Your task to perform on an android device: open app "Indeed Job Search" (install if not already installed) Image 0: 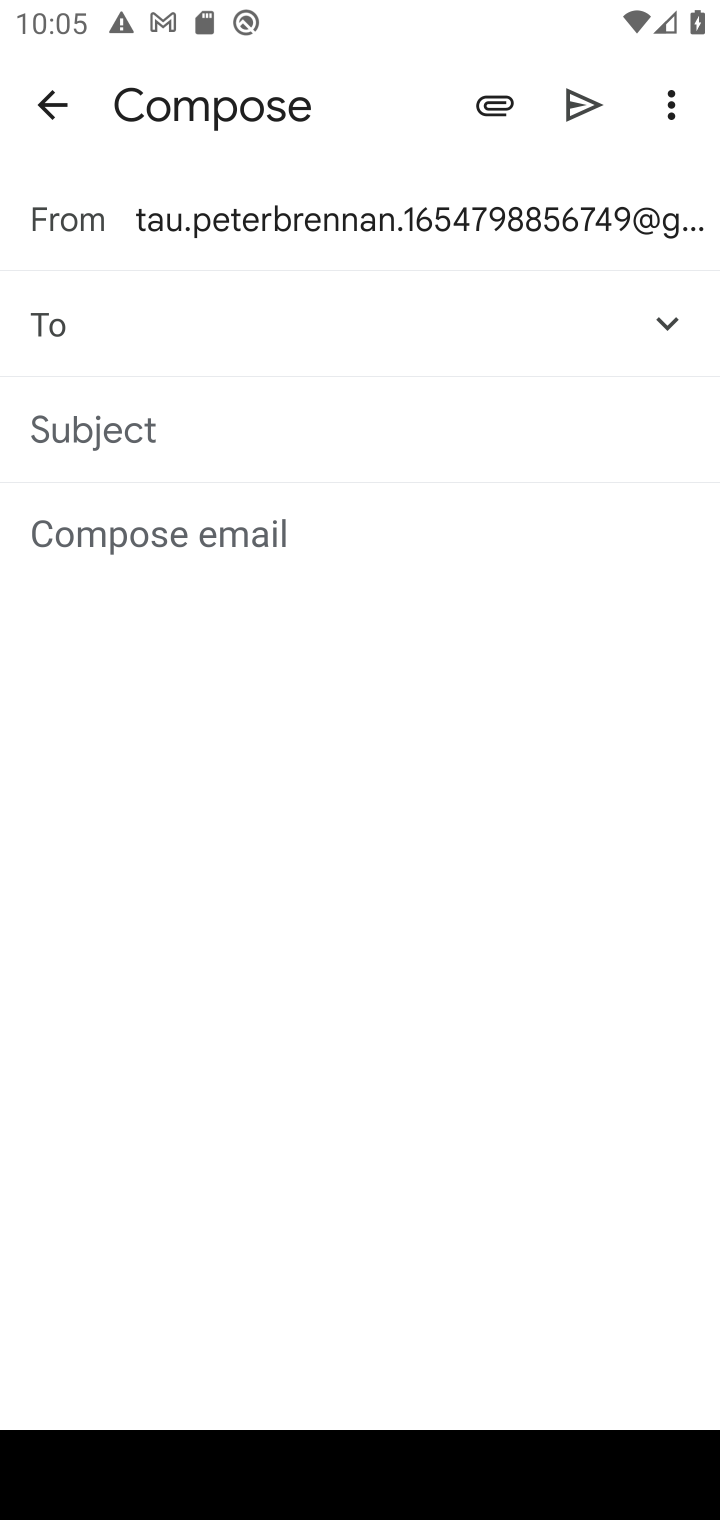
Step 0: press home button
Your task to perform on an android device: open app "Indeed Job Search" (install if not already installed) Image 1: 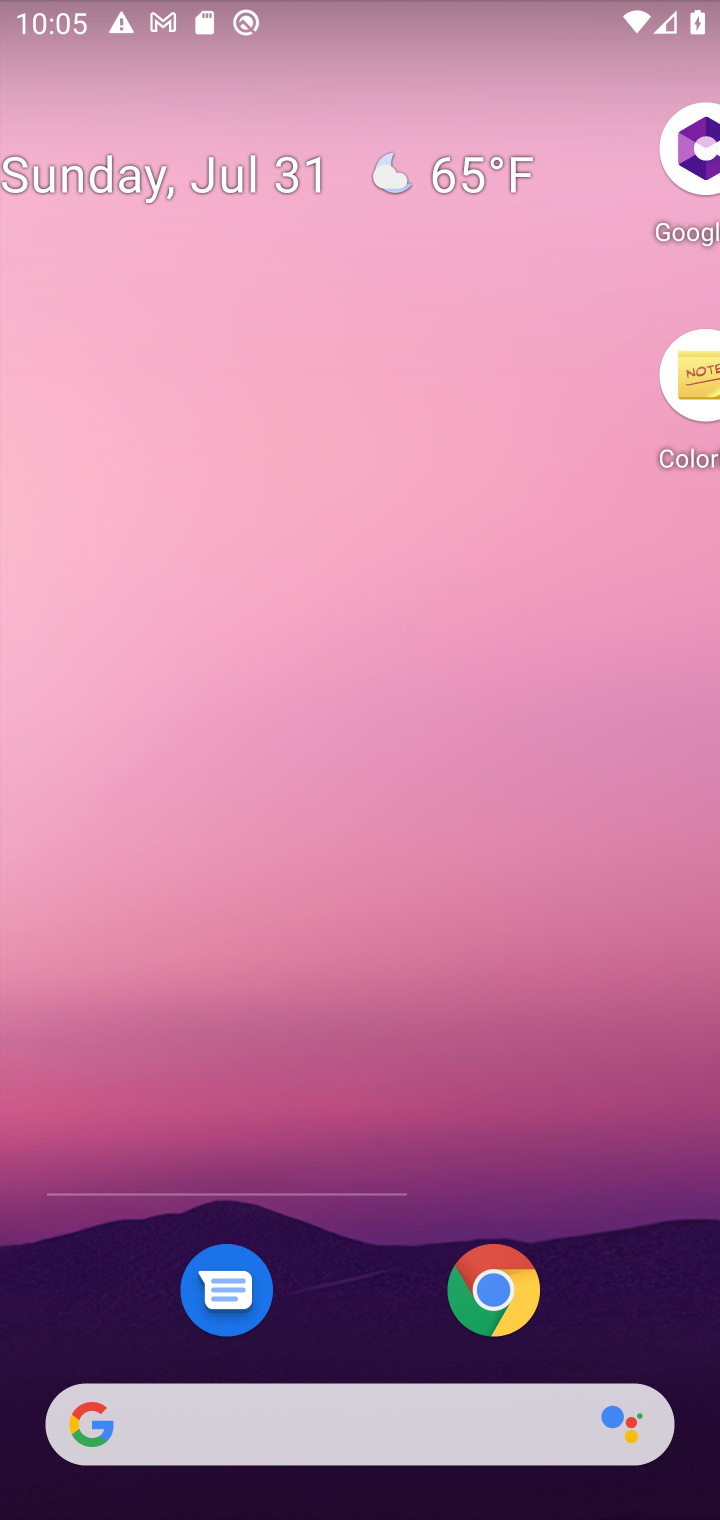
Step 1: press home button
Your task to perform on an android device: open app "Indeed Job Search" (install if not already installed) Image 2: 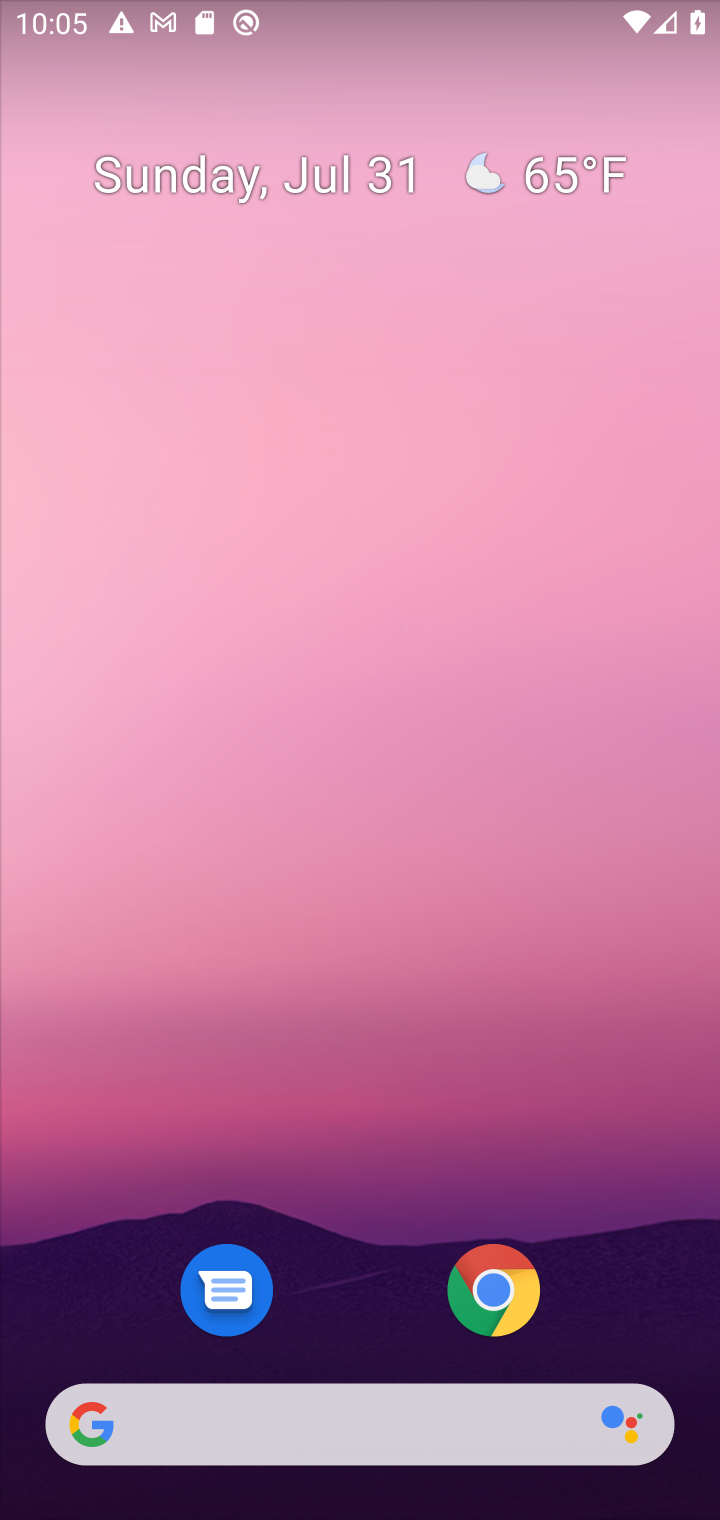
Step 2: drag from (609, 1175) to (607, 116)
Your task to perform on an android device: open app "Indeed Job Search" (install if not already installed) Image 3: 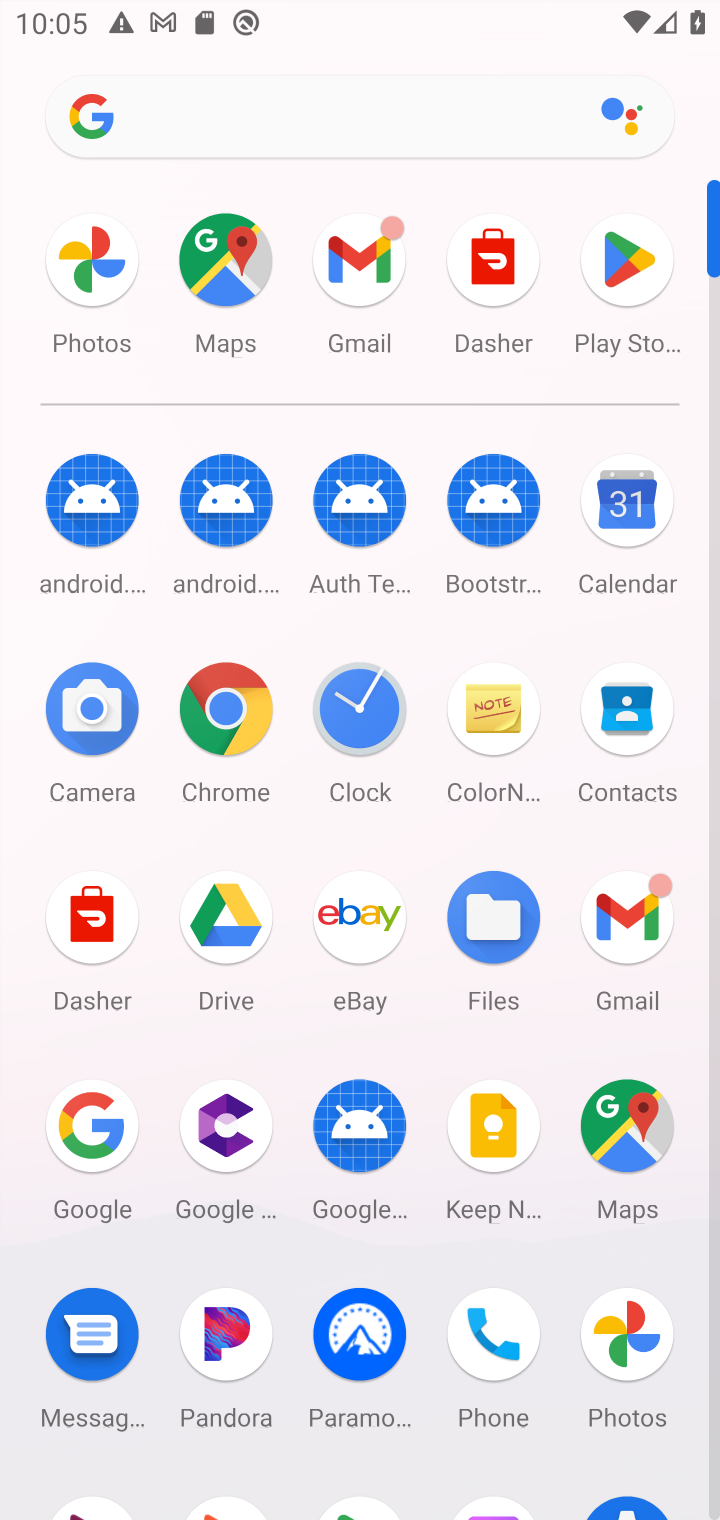
Step 3: click (626, 247)
Your task to perform on an android device: open app "Indeed Job Search" (install if not already installed) Image 4: 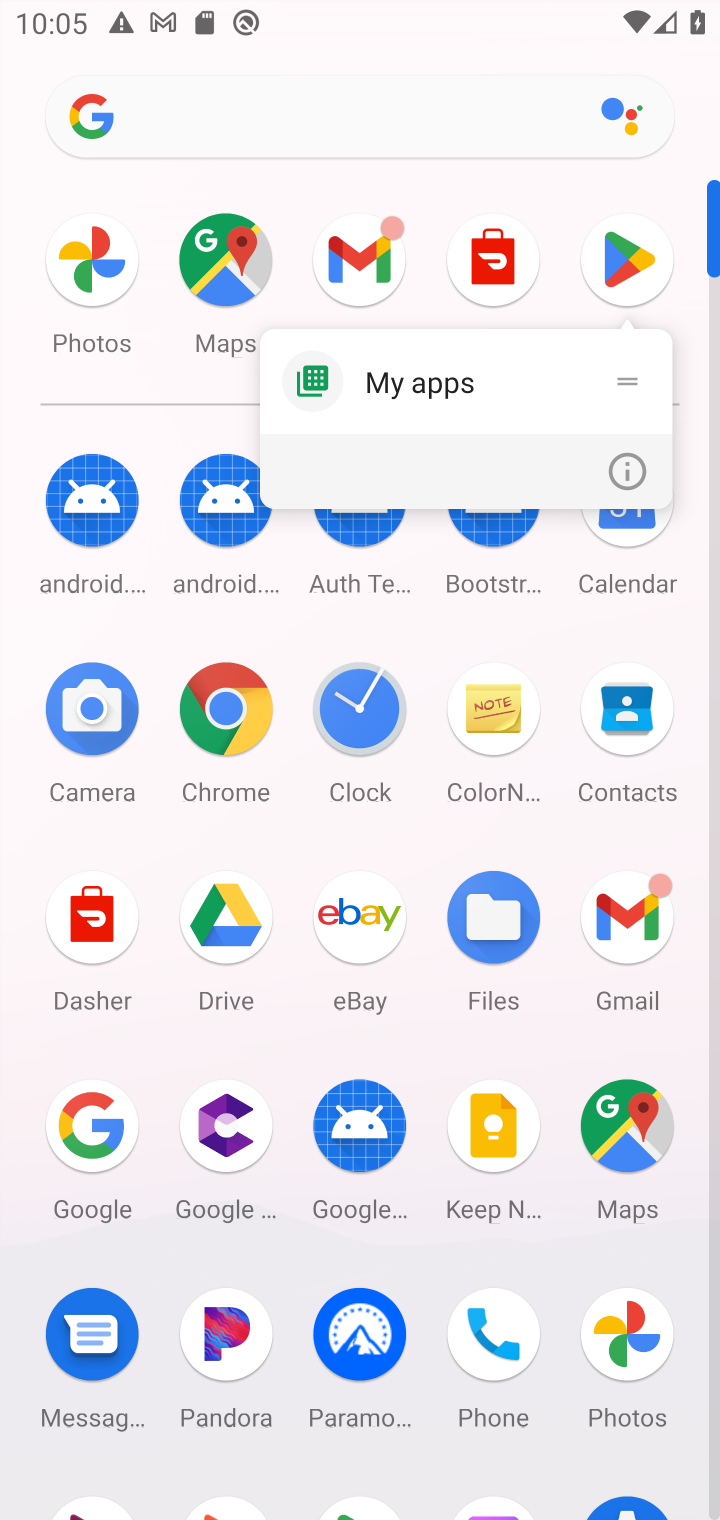
Step 4: click (612, 268)
Your task to perform on an android device: open app "Indeed Job Search" (install if not already installed) Image 5: 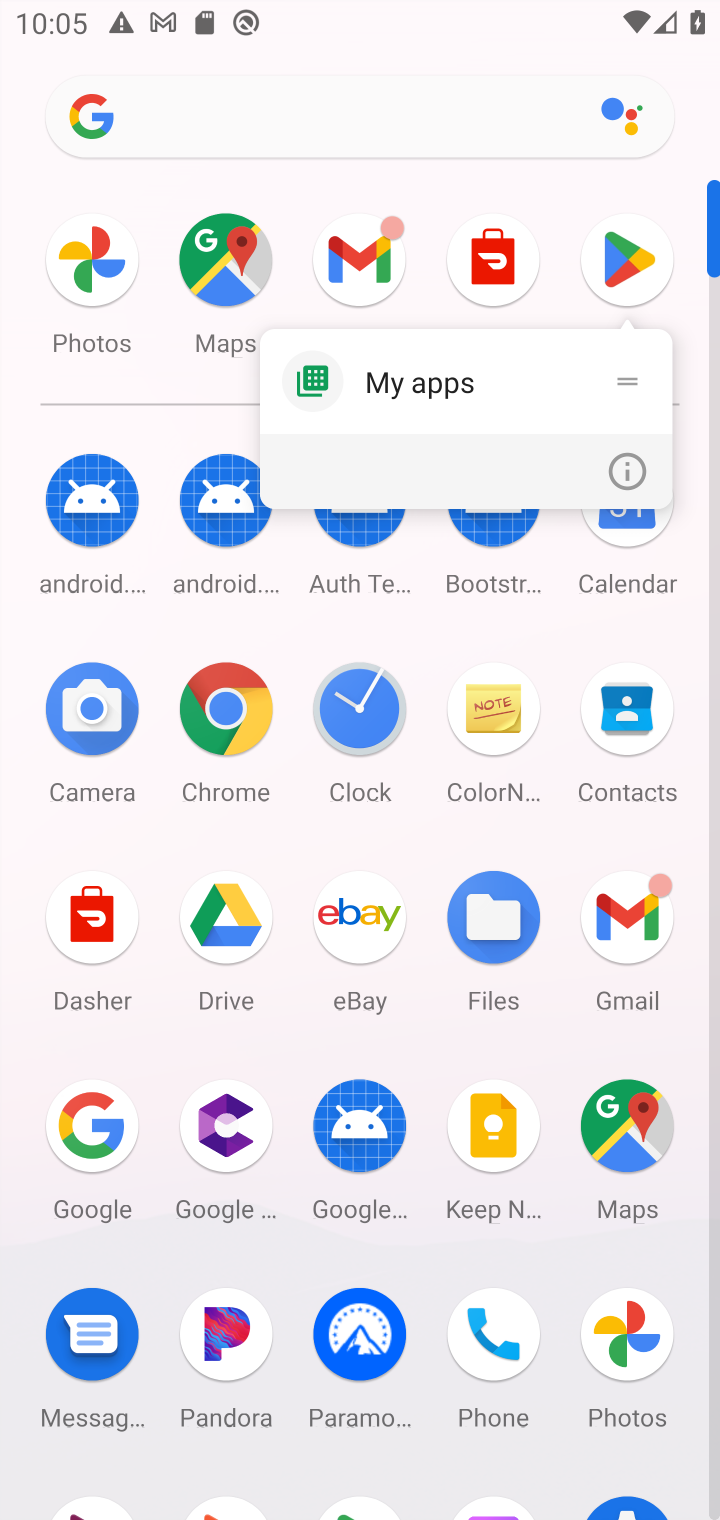
Step 5: click (638, 248)
Your task to perform on an android device: open app "Indeed Job Search" (install if not already installed) Image 6: 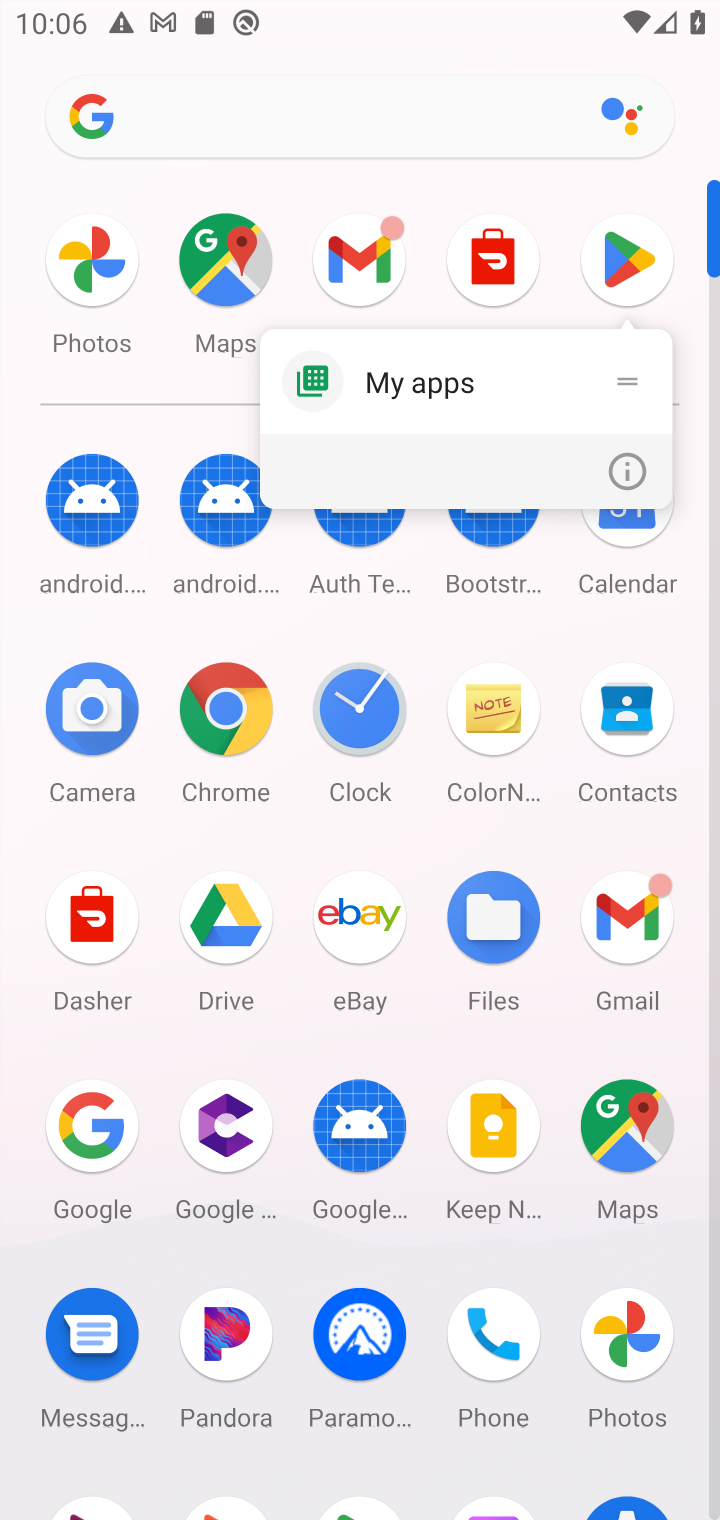
Step 6: click (637, 260)
Your task to perform on an android device: open app "Indeed Job Search" (install if not already installed) Image 7: 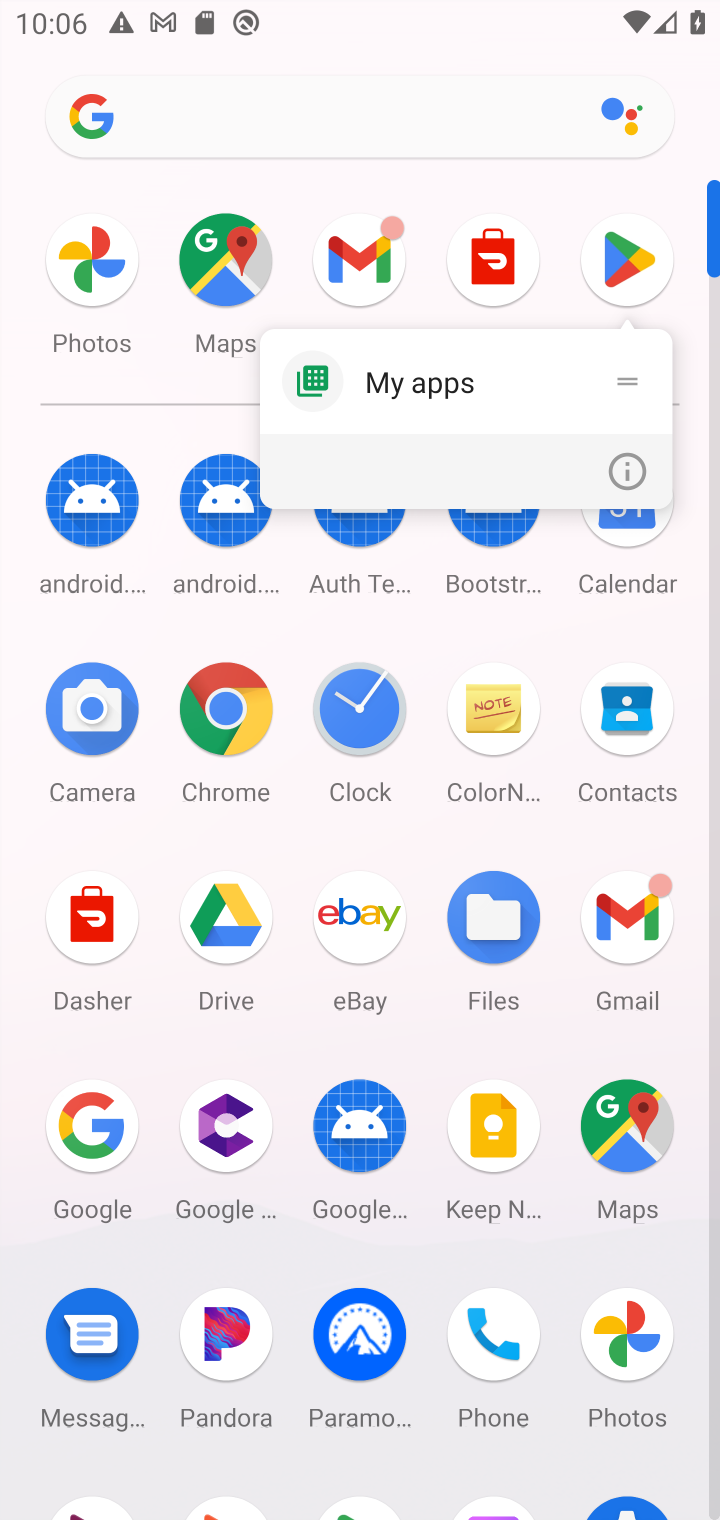
Step 7: click (633, 255)
Your task to perform on an android device: open app "Indeed Job Search" (install if not already installed) Image 8: 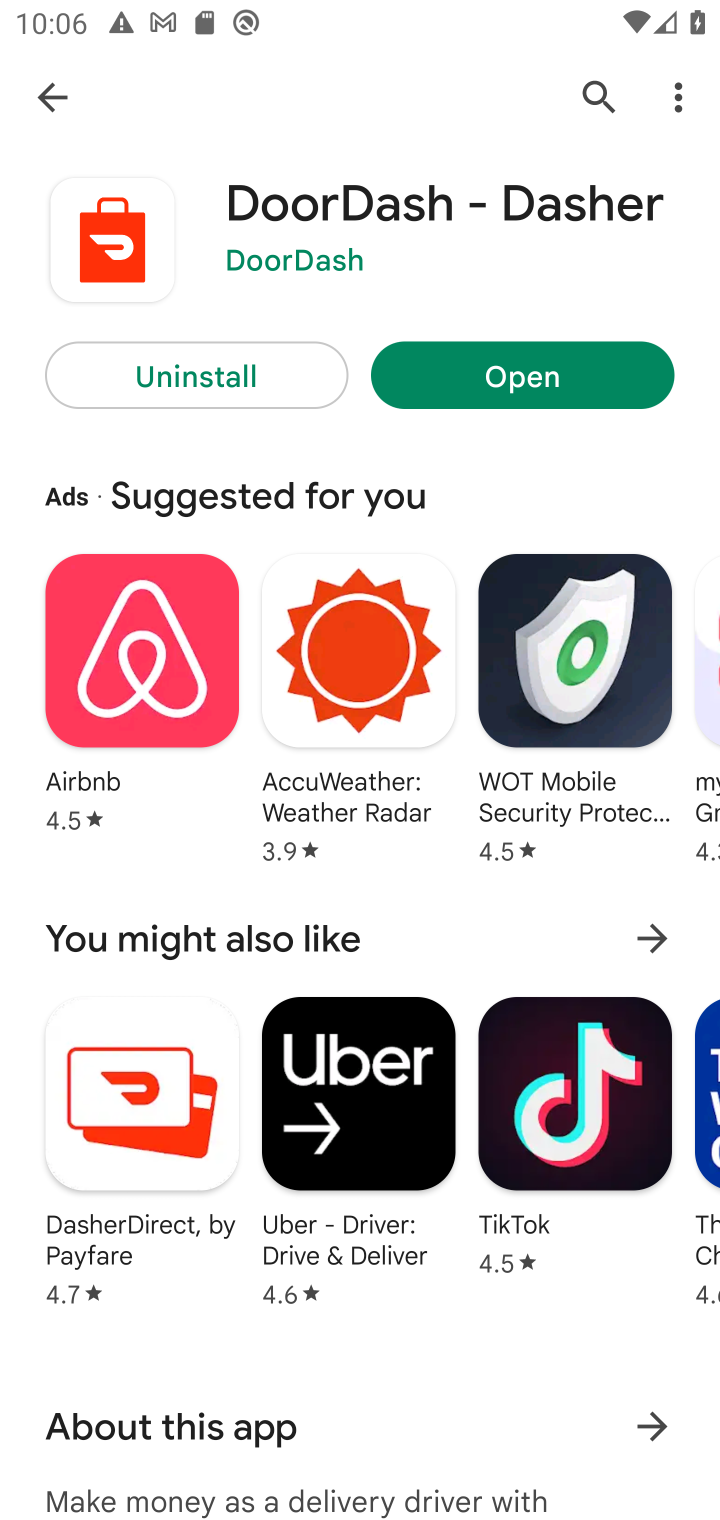
Step 8: click (52, 85)
Your task to perform on an android device: open app "Indeed Job Search" (install if not already installed) Image 9: 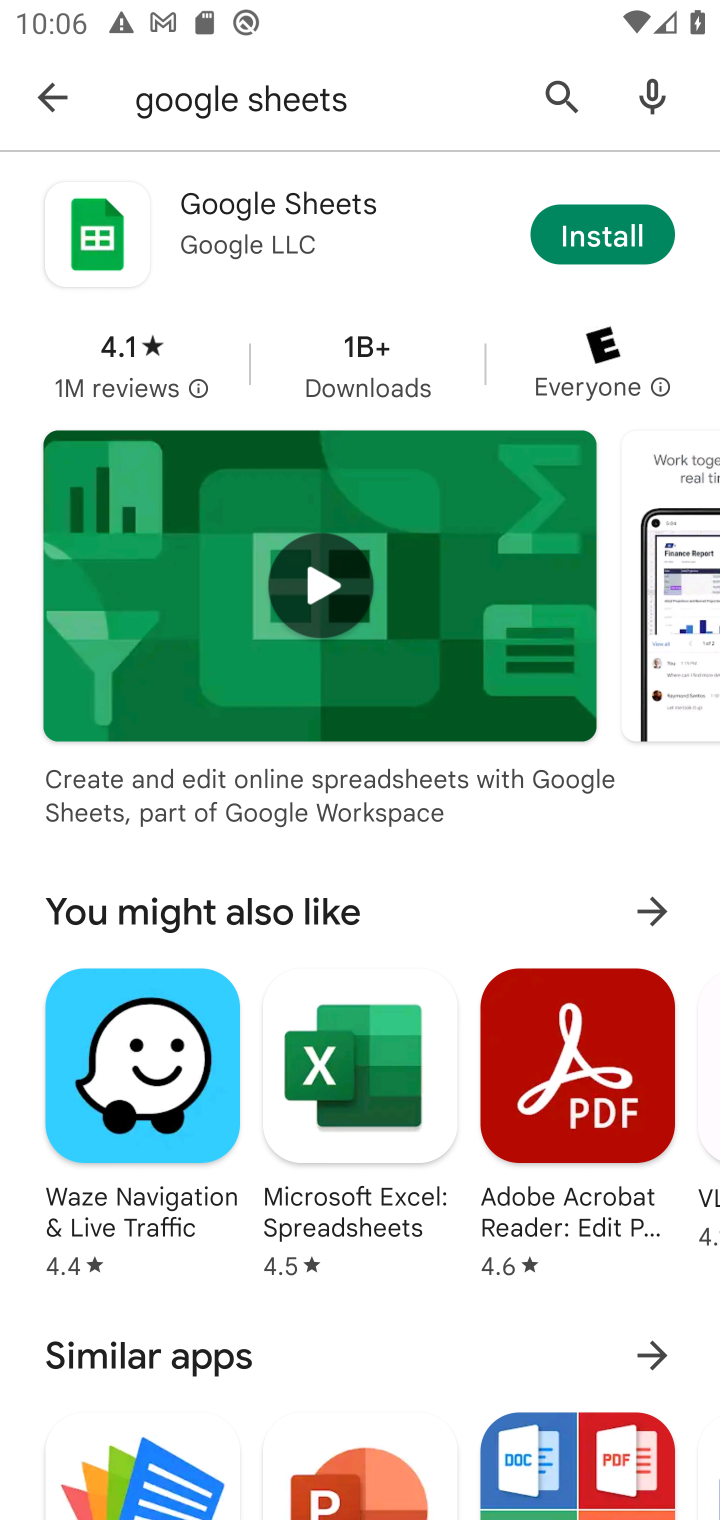
Step 9: click (535, 91)
Your task to perform on an android device: open app "Indeed Job Search" (install if not already installed) Image 10: 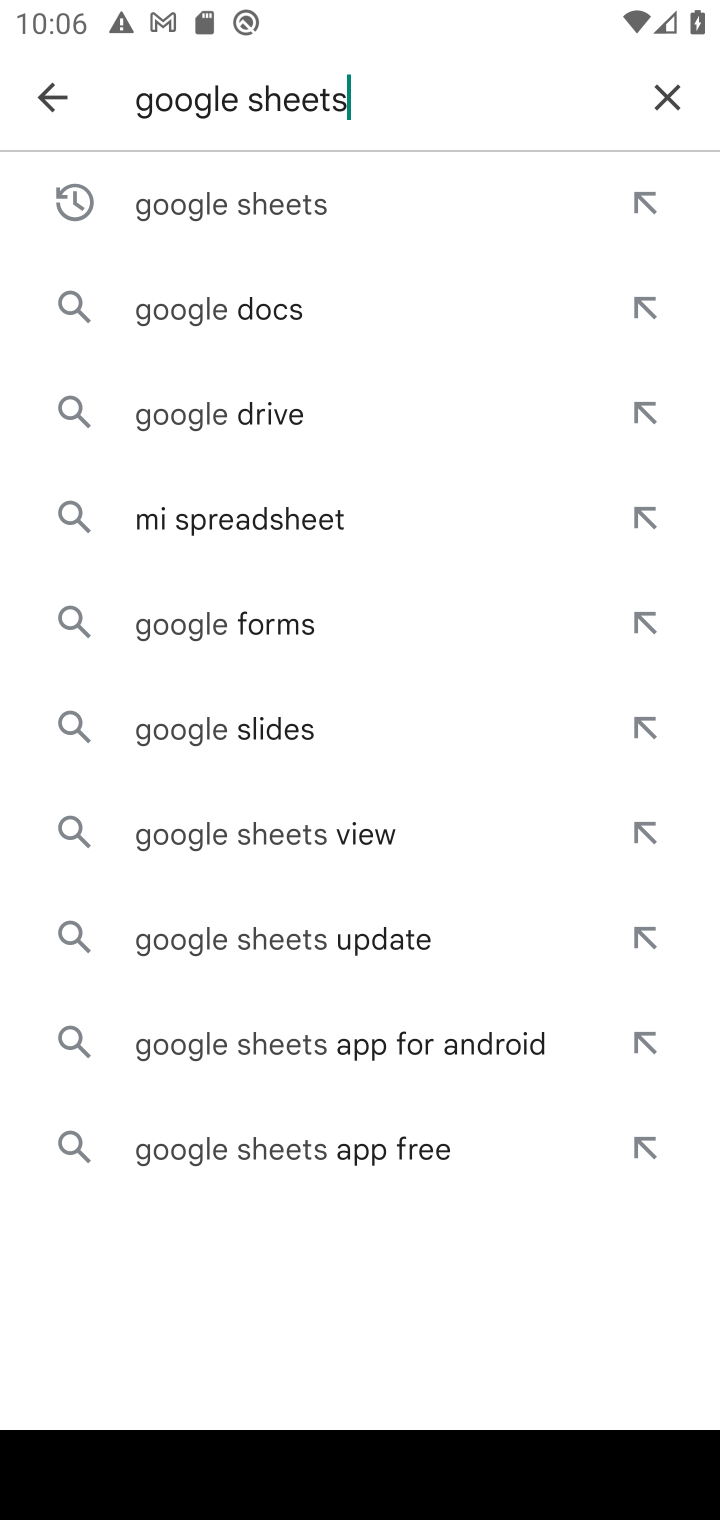
Step 10: click (671, 109)
Your task to perform on an android device: open app "Indeed Job Search" (install if not already installed) Image 11: 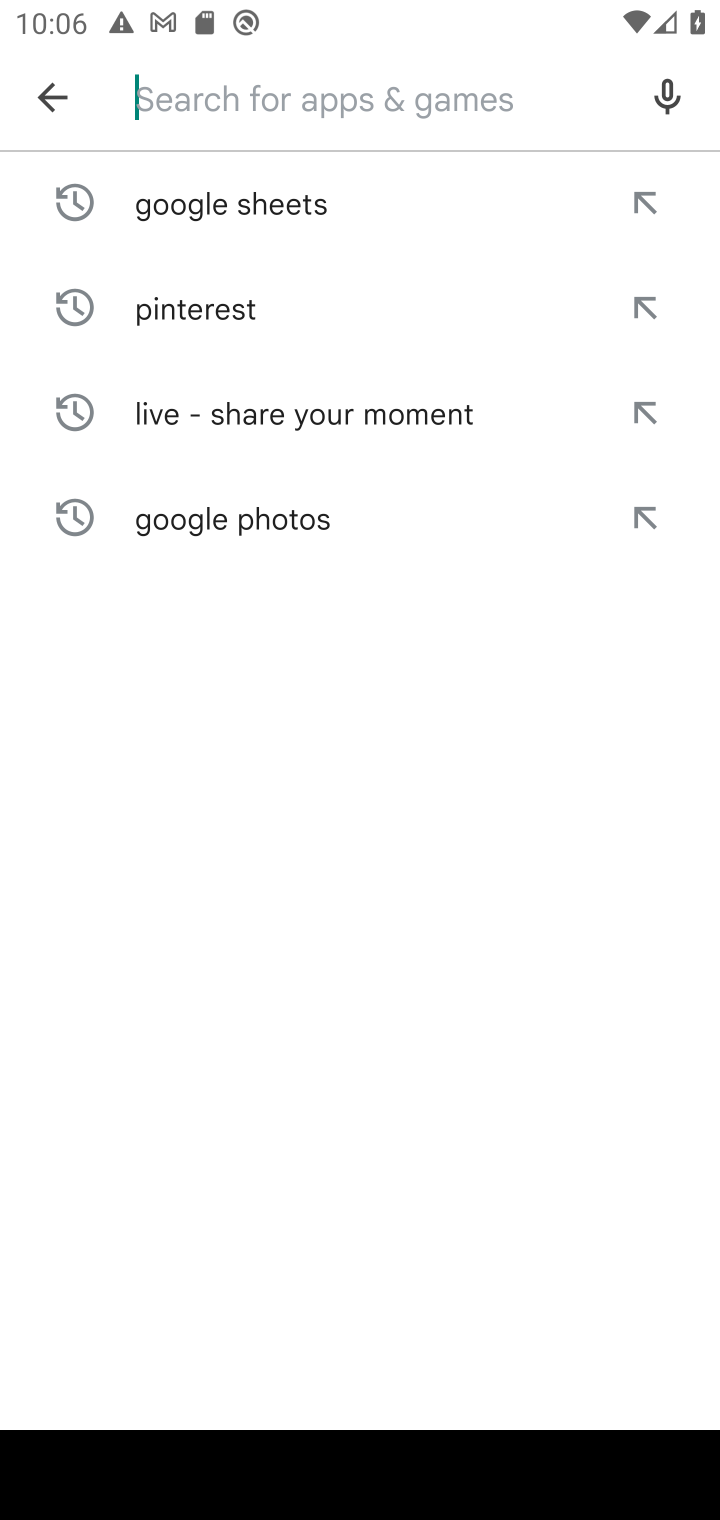
Step 11: type "indeed job search"
Your task to perform on an android device: open app "Indeed Job Search" (install if not already installed) Image 12: 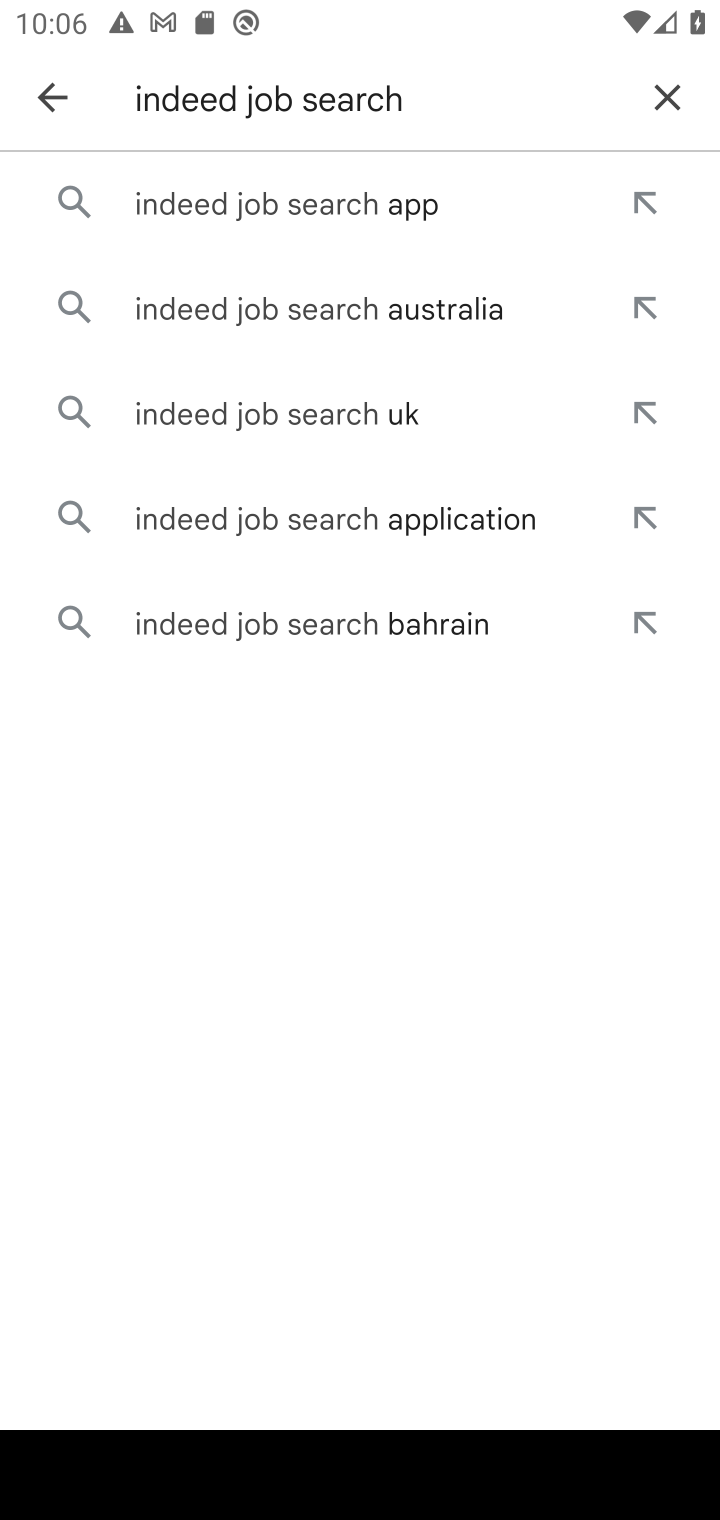
Step 12: click (346, 217)
Your task to perform on an android device: open app "Indeed Job Search" (install if not already installed) Image 13: 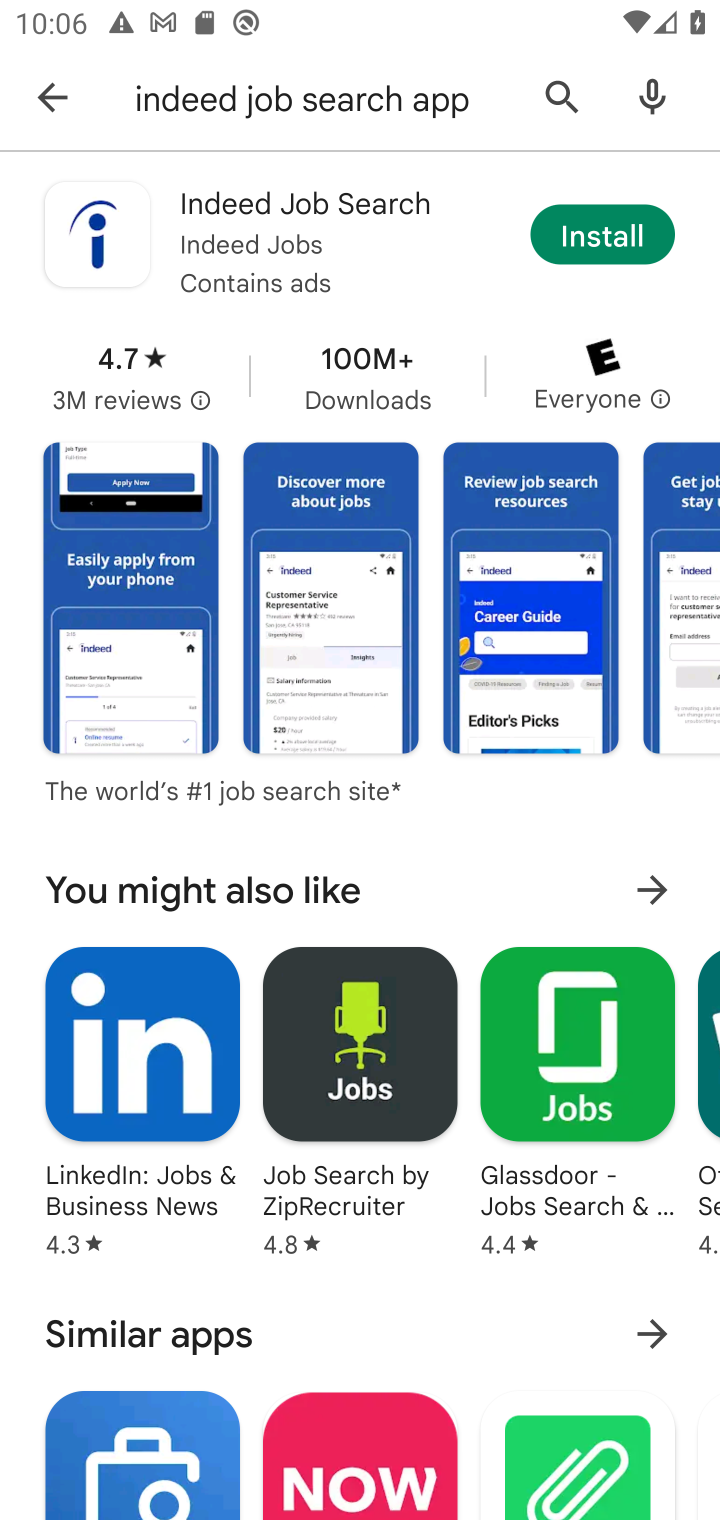
Step 13: click (601, 242)
Your task to perform on an android device: open app "Indeed Job Search" (install if not already installed) Image 14: 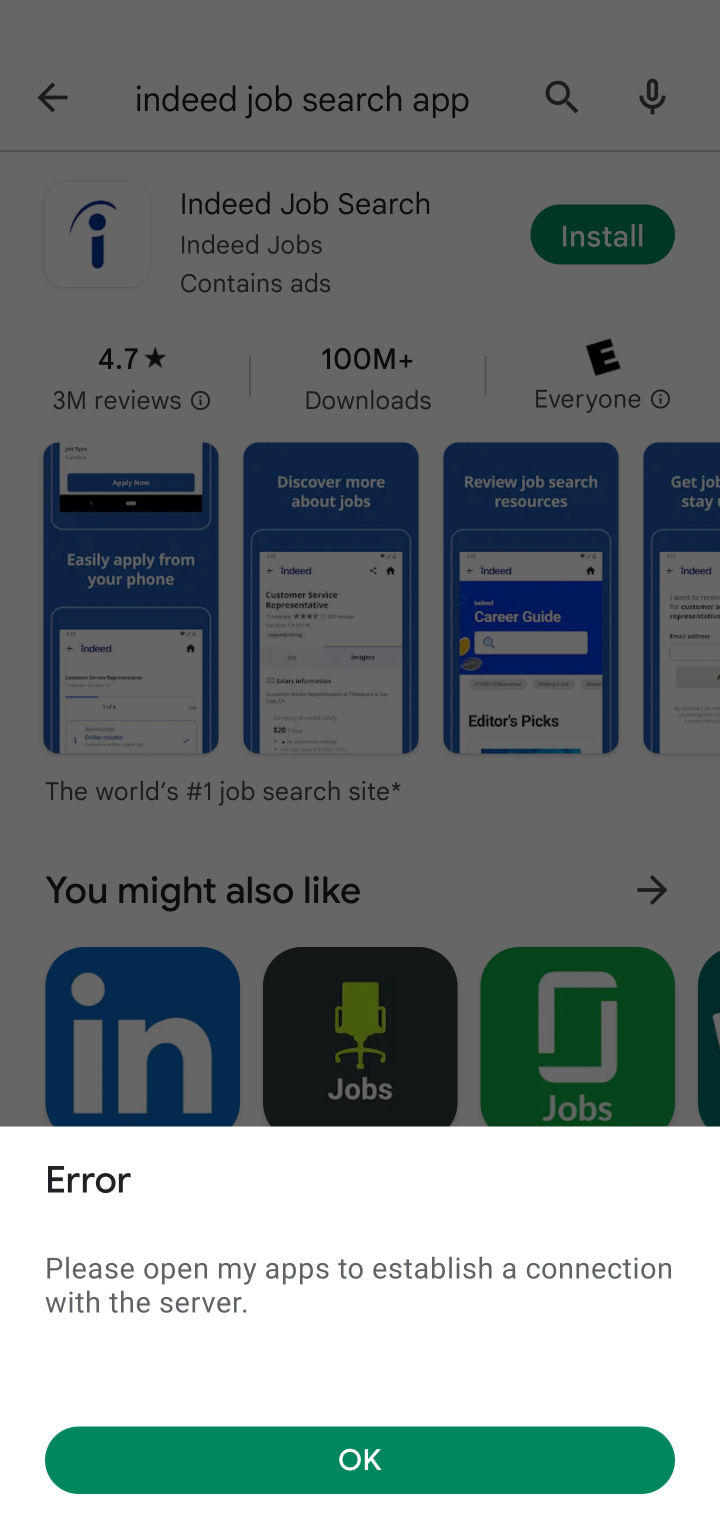
Step 14: task complete